Your task to perform on an android device: delete a single message in the gmail app Image 0: 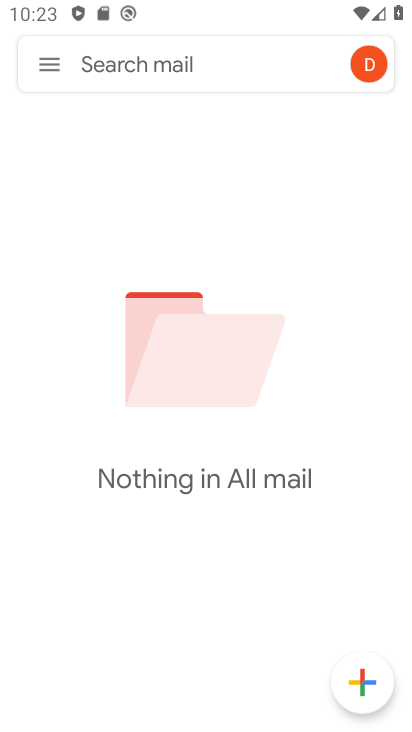
Step 0: drag from (329, 617) to (303, 227)
Your task to perform on an android device: delete a single message in the gmail app Image 1: 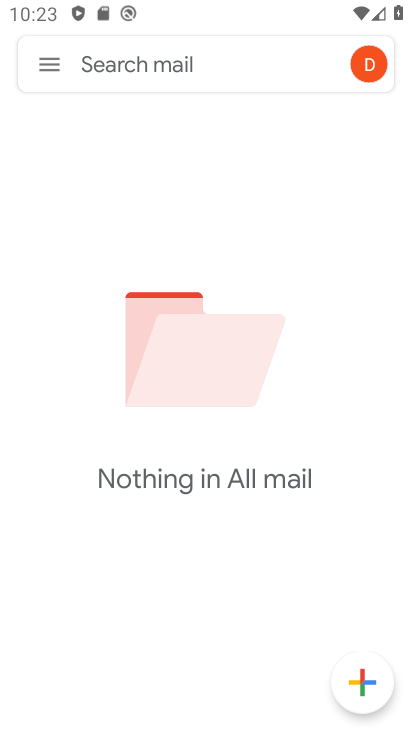
Step 1: drag from (365, 530) to (363, 251)
Your task to perform on an android device: delete a single message in the gmail app Image 2: 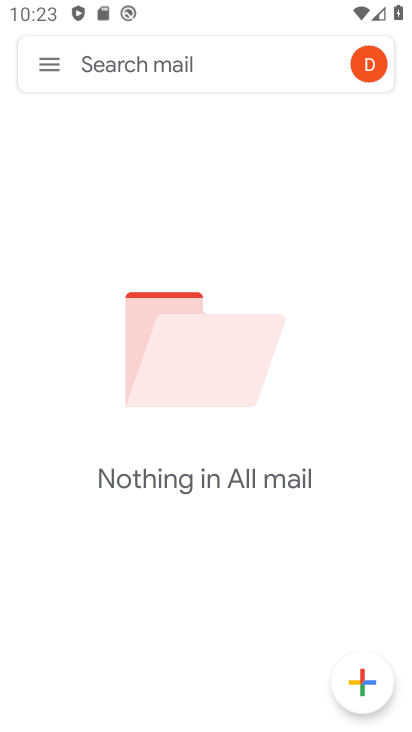
Step 2: press home button
Your task to perform on an android device: delete a single message in the gmail app Image 3: 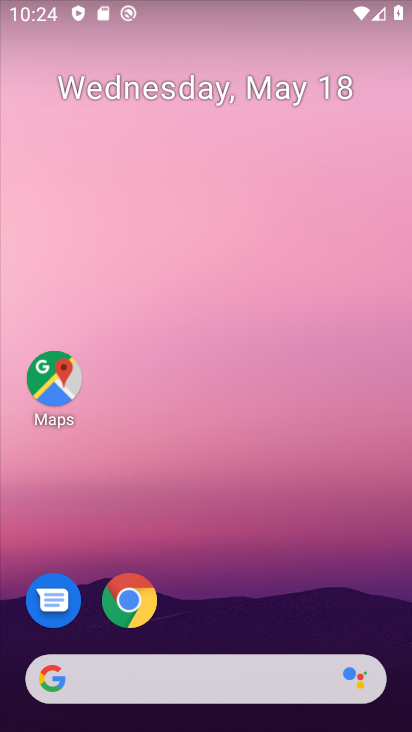
Step 3: drag from (311, 569) to (283, 42)
Your task to perform on an android device: delete a single message in the gmail app Image 4: 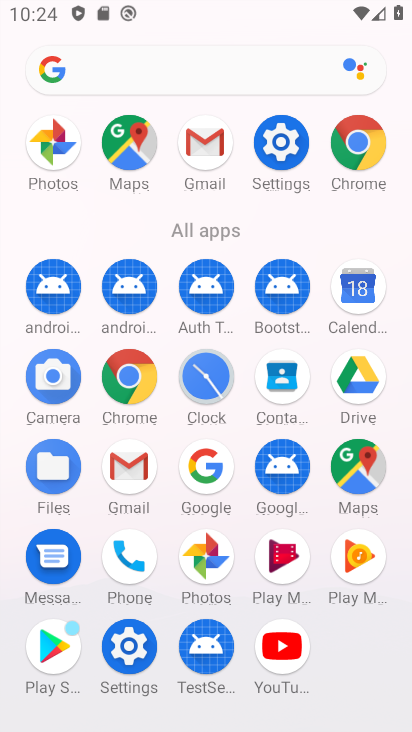
Step 4: click (138, 468)
Your task to perform on an android device: delete a single message in the gmail app Image 5: 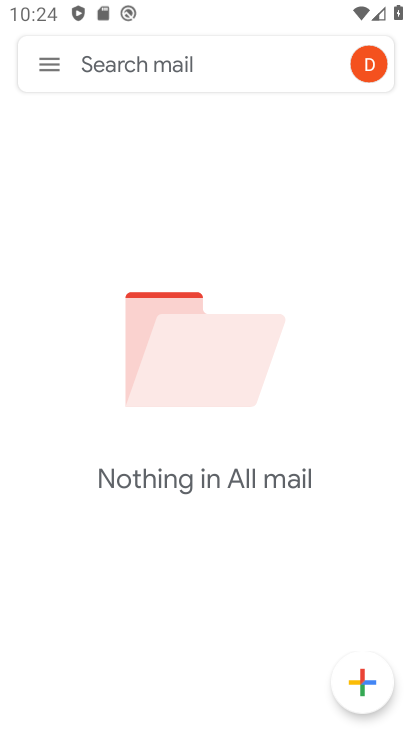
Step 5: click (52, 65)
Your task to perform on an android device: delete a single message in the gmail app Image 6: 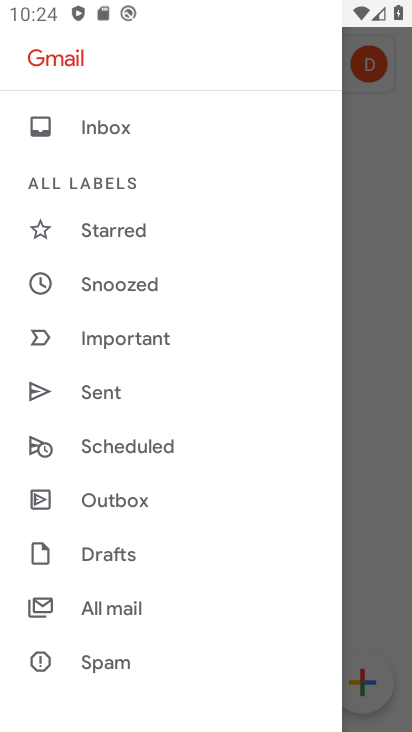
Step 6: click (142, 614)
Your task to perform on an android device: delete a single message in the gmail app Image 7: 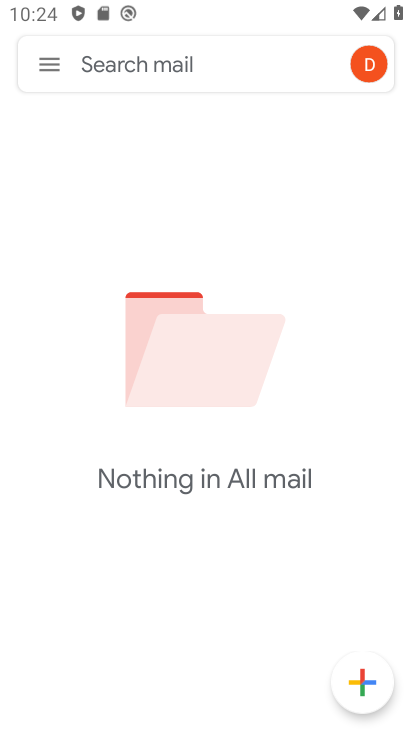
Step 7: task complete